Your task to perform on an android device: Go to battery settings Image 0: 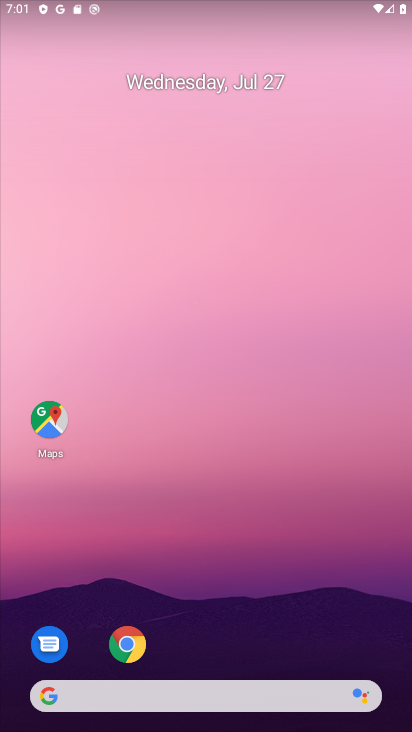
Step 0: drag from (225, 560) to (305, 138)
Your task to perform on an android device: Go to battery settings Image 1: 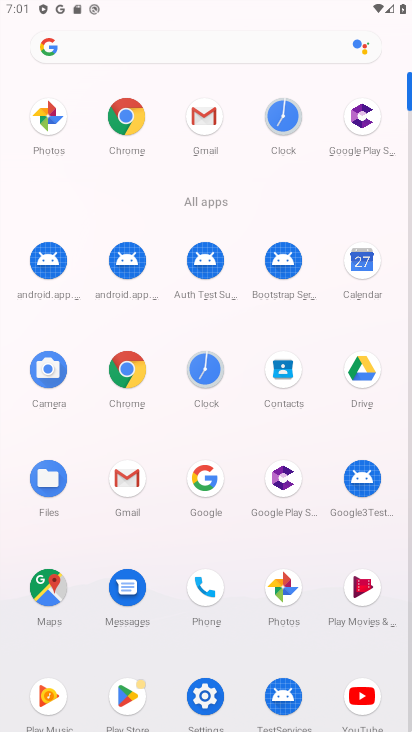
Step 1: click (211, 686)
Your task to perform on an android device: Go to battery settings Image 2: 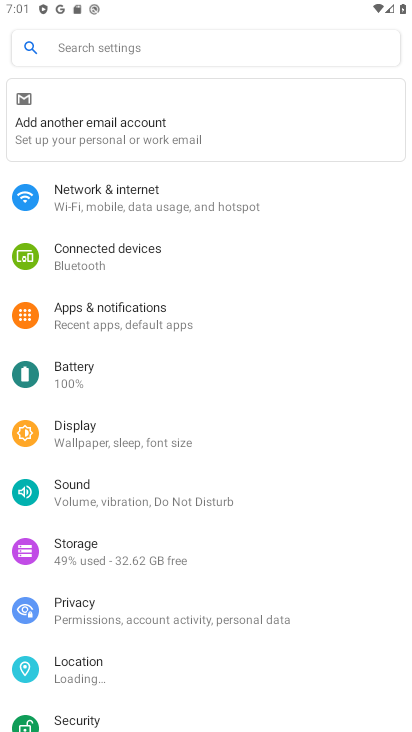
Step 2: click (69, 374)
Your task to perform on an android device: Go to battery settings Image 3: 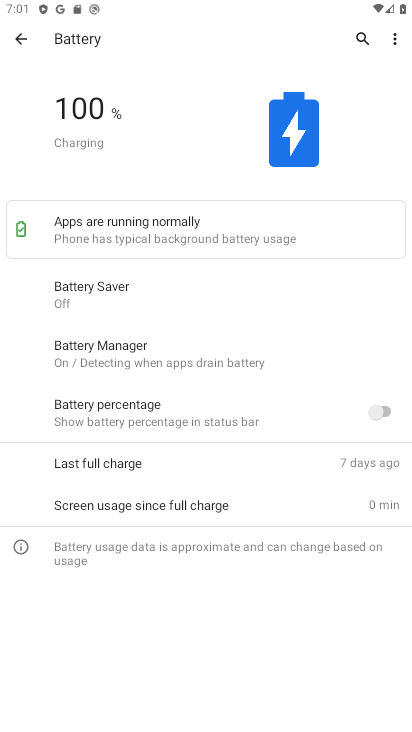
Step 3: task complete